Your task to perform on an android device: Toggle the flashlight Image 0: 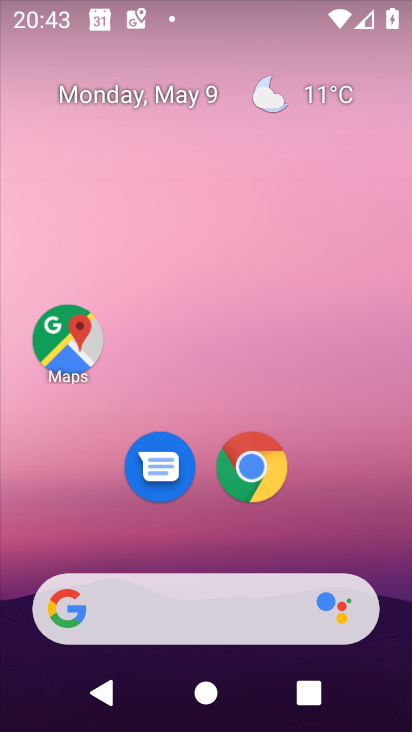
Step 0: click (288, 180)
Your task to perform on an android device: Toggle the flashlight Image 1: 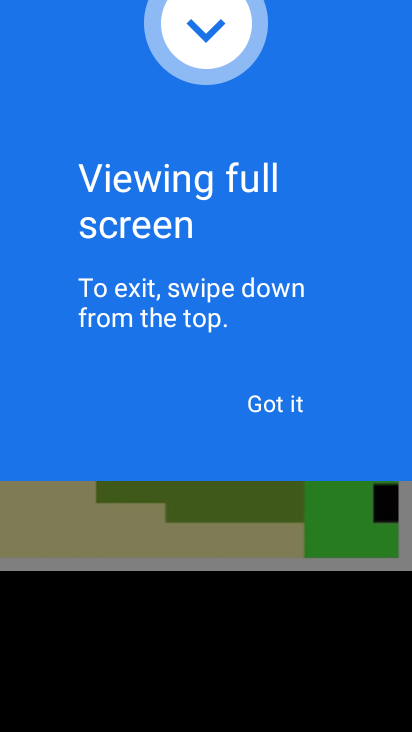
Step 1: press home button
Your task to perform on an android device: Toggle the flashlight Image 2: 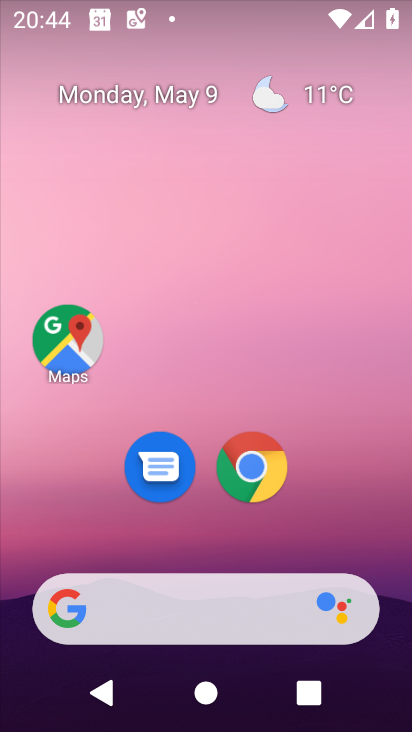
Step 2: drag from (355, 506) to (323, 248)
Your task to perform on an android device: Toggle the flashlight Image 3: 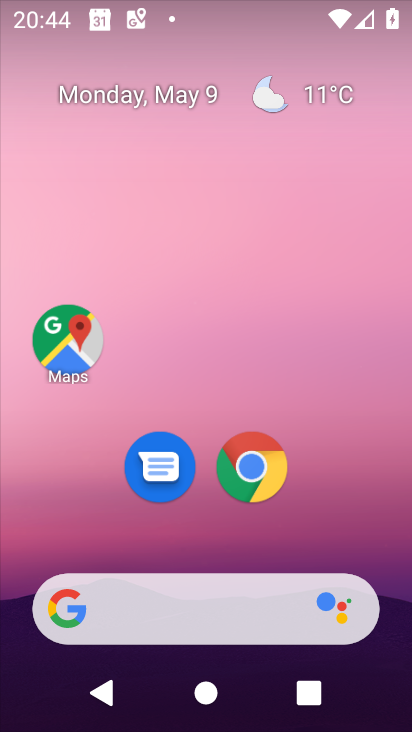
Step 3: drag from (318, 523) to (298, 111)
Your task to perform on an android device: Toggle the flashlight Image 4: 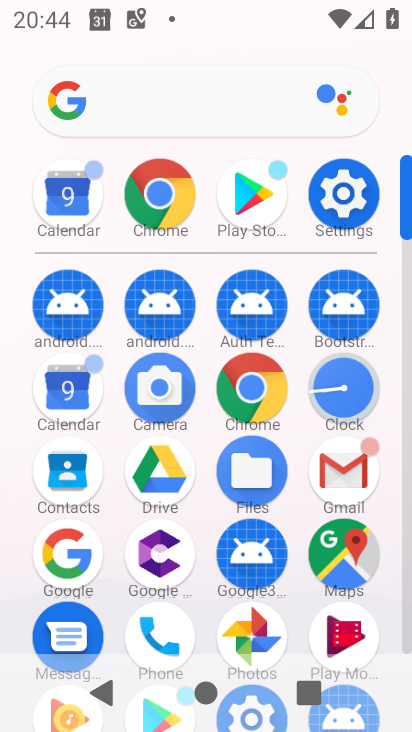
Step 4: click (332, 212)
Your task to perform on an android device: Toggle the flashlight Image 5: 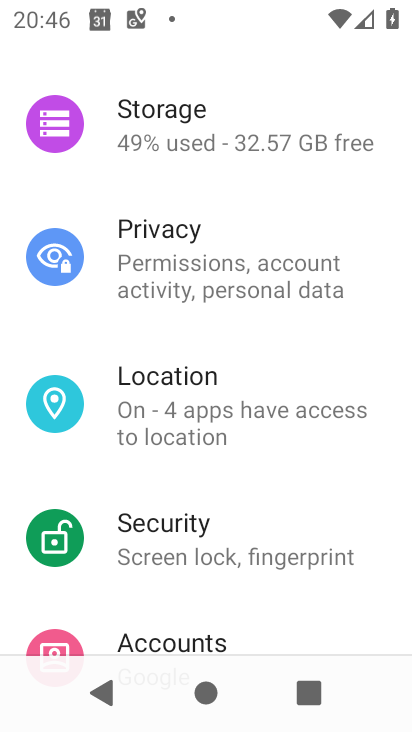
Step 5: task complete